Your task to perform on an android device: Open CNN.com Image 0: 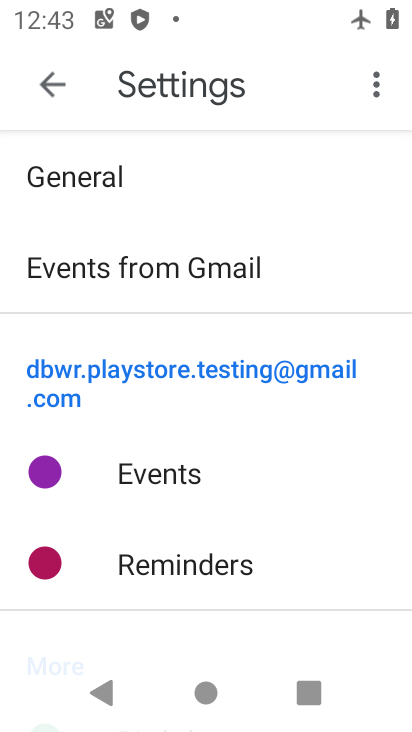
Step 0: press back button
Your task to perform on an android device: Open CNN.com Image 1: 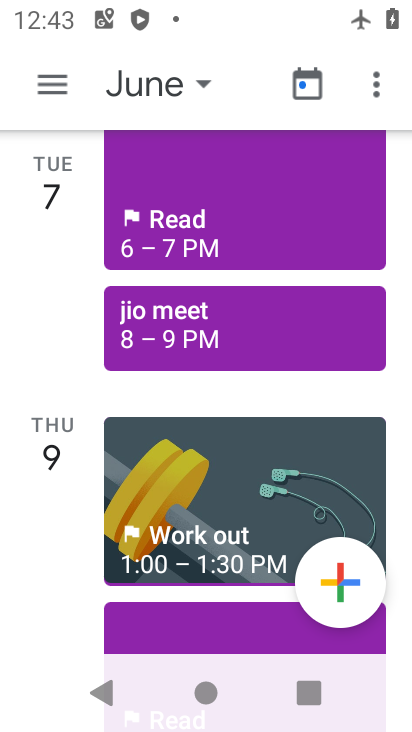
Step 1: press home button
Your task to perform on an android device: Open CNN.com Image 2: 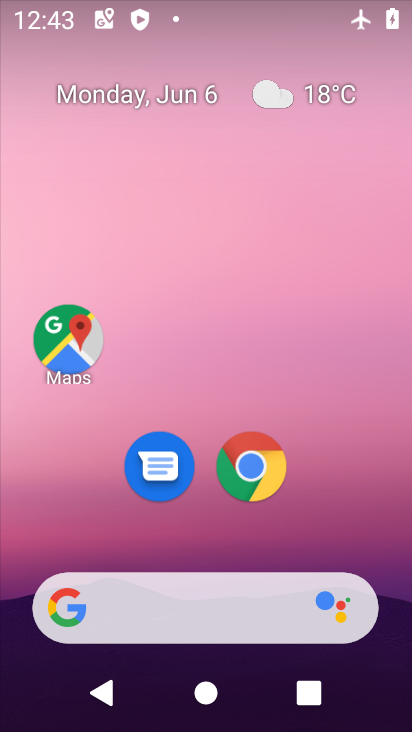
Step 2: drag from (325, 514) to (256, 41)
Your task to perform on an android device: Open CNN.com Image 3: 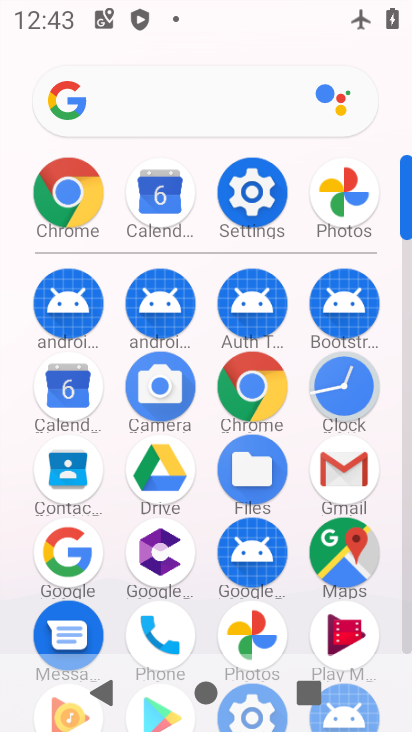
Step 3: click (243, 389)
Your task to perform on an android device: Open CNN.com Image 4: 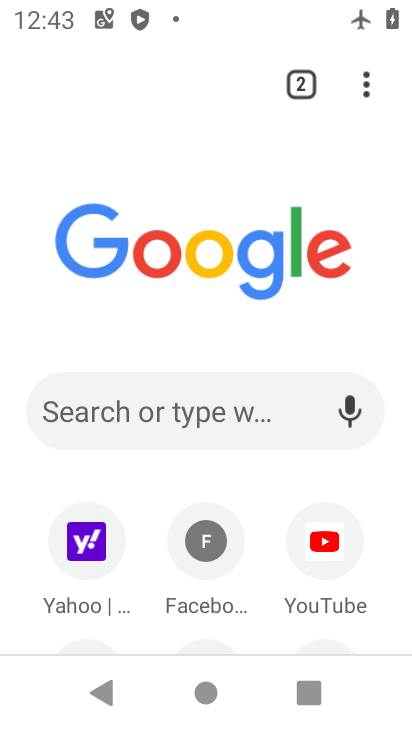
Step 4: click (261, 398)
Your task to perform on an android device: Open CNN.com Image 5: 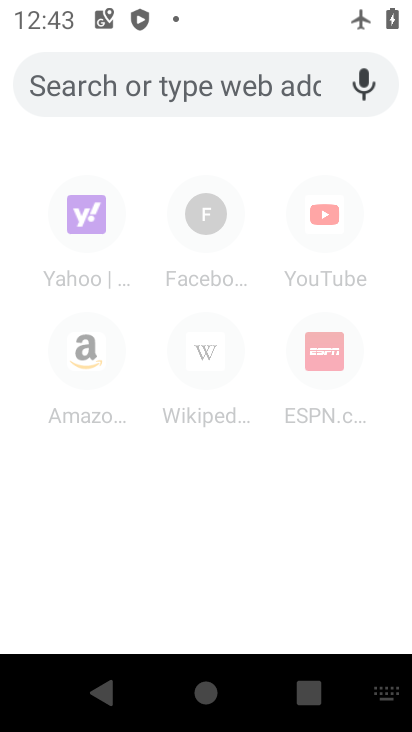
Step 5: type " CNN.com"
Your task to perform on an android device: Open CNN.com Image 6: 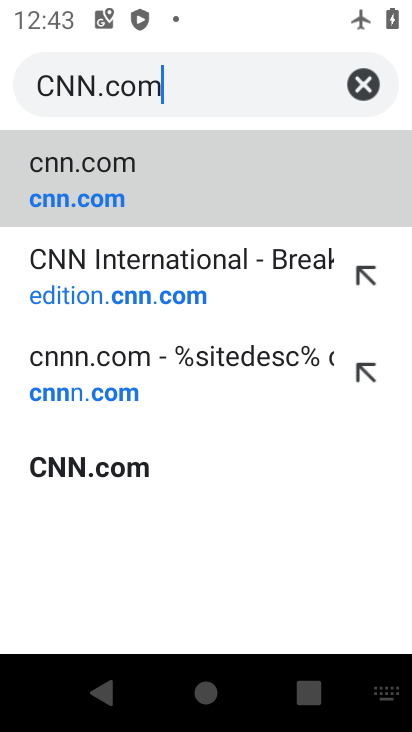
Step 6: type ""
Your task to perform on an android device: Open CNN.com Image 7: 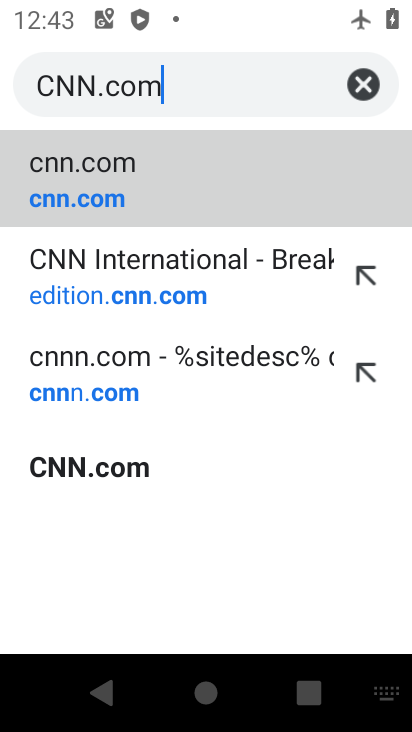
Step 7: click (154, 171)
Your task to perform on an android device: Open CNN.com Image 8: 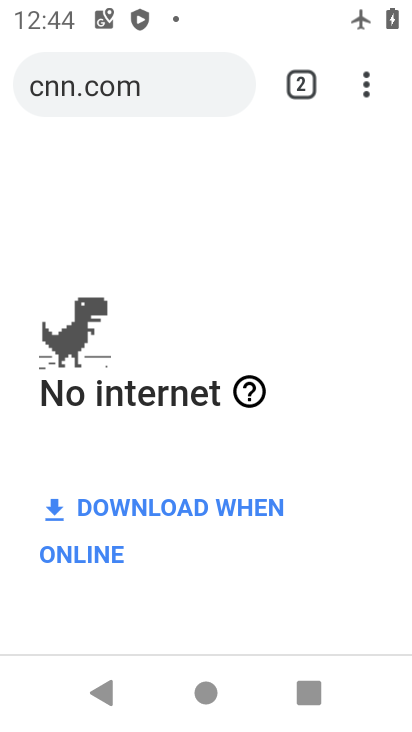
Step 8: task complete